Your task to perform on an android device: toggle wifi Image 0: 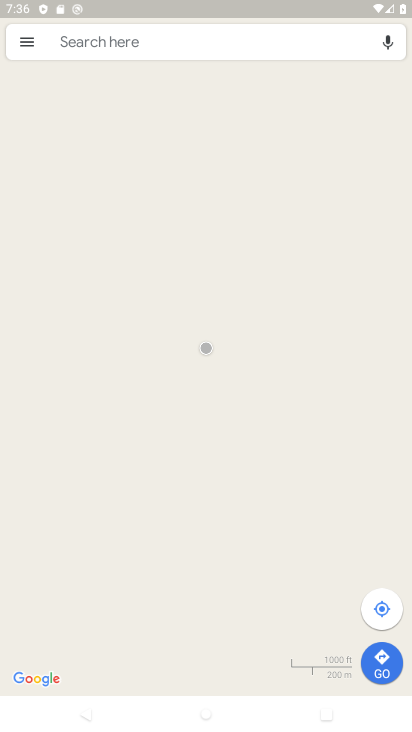
Step 0: press home button
Your task to perform on an android device: toggle wifi Image 1: 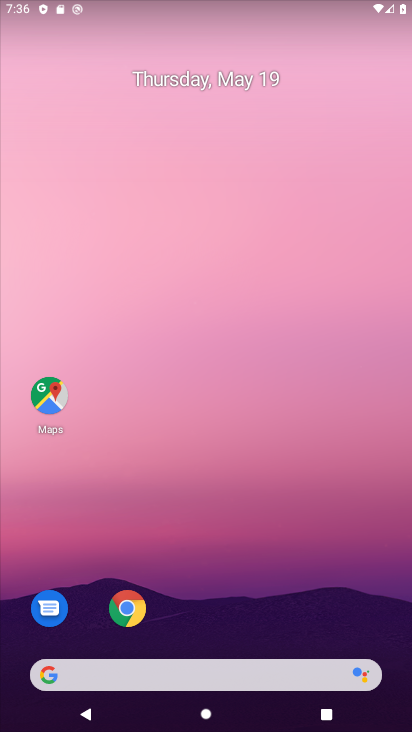
Step 1: drag from (389, 642) to (383, 303)
Your task to perform on an android device: toggle wifi Image 2: 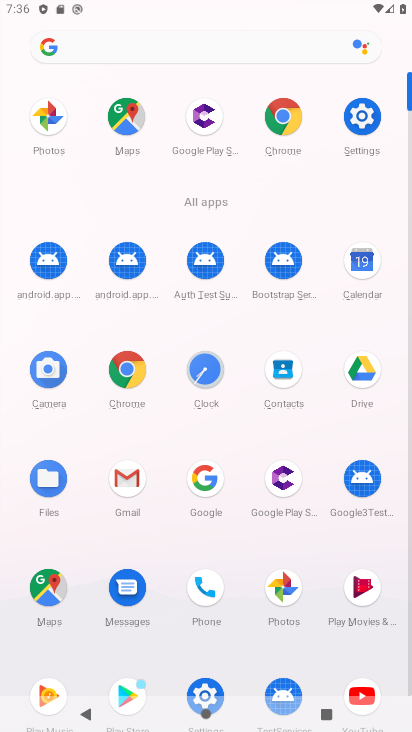
Step 2: click (359, 110)
Your task to perform on an android device: toggle wifi Image 3: 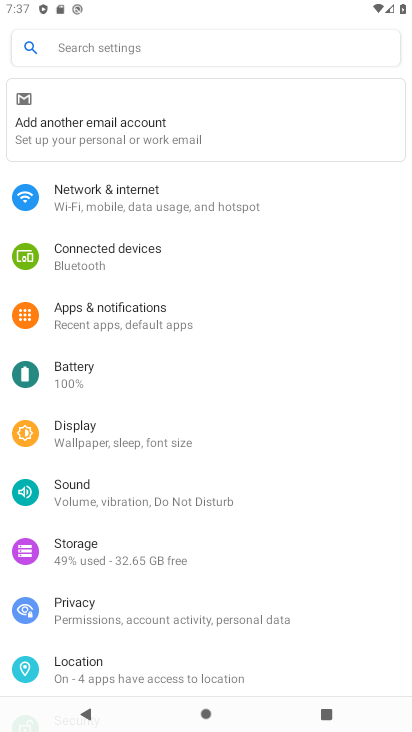
Step 3: click (65, 197)
Your task to perform on an android device: toggle wifi Image 4: 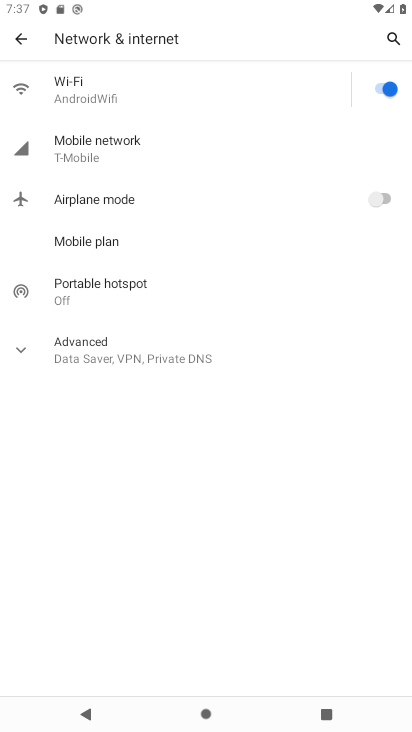
Step 4: click (378, 88)
Your task to perform on an android device: toggle wifi Image 5: 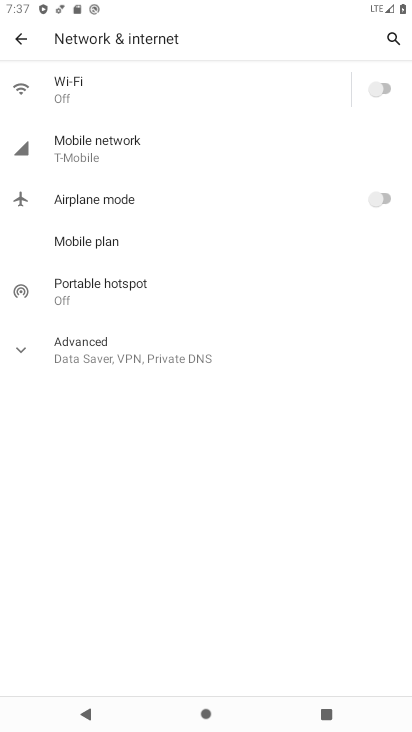
Step 5: task complete